Your task to perform on an android device: change alarm snooze length Image 0: 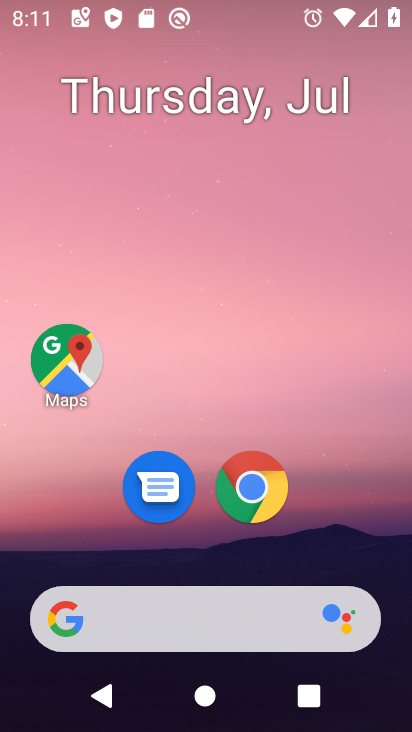
Step 0: click (280, 204)
Your task to perform on an android device: change alarm snooze length Image 1: 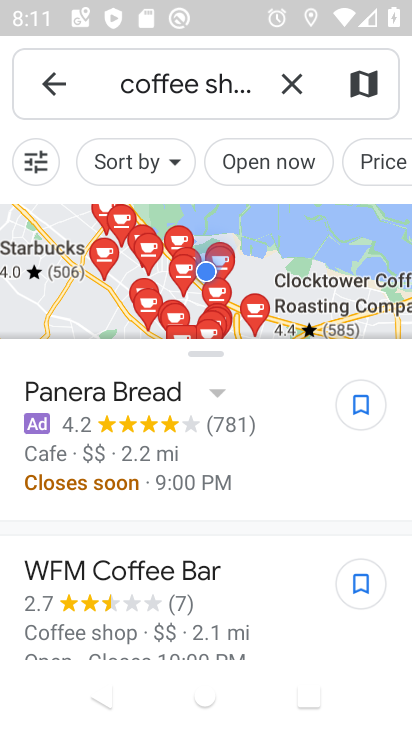
Step 1: press home button
Your task to perform on an android device: change alarm snooze length Image 2: 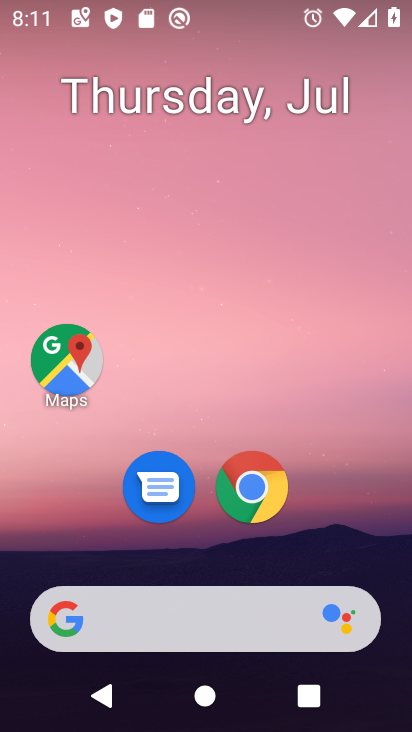
Step 2: drag from (213, 615) to (206, 259)
Your task to perform on an android device: change alarm snooze length Image 3: 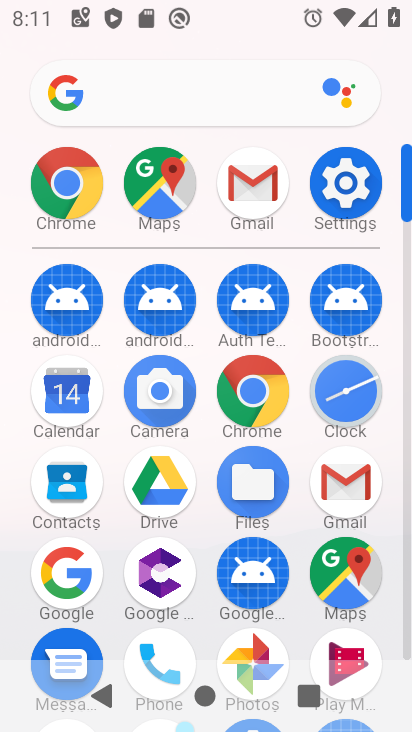
Step 3: drag from (249, 476) to (255, 282)
Your task to perform on an android device: change alarm snooze length Image 4: 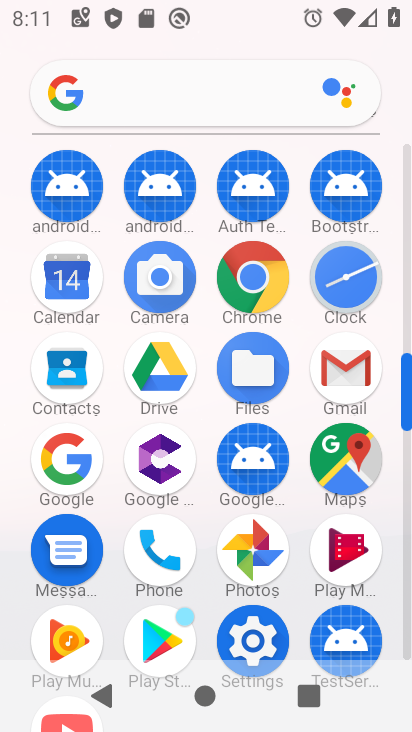
Step 4: drag from (241, 400) to (271, 212)
Your task to perform on an android device: change alarm snooze length Image 5: 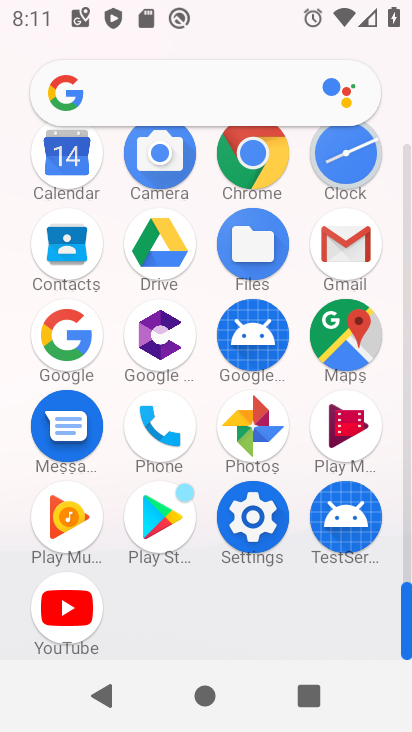
Step 5: drag from (269, 303) to (264, 524)
Your task to perform on an android device: change alarm snooze length Image 6: 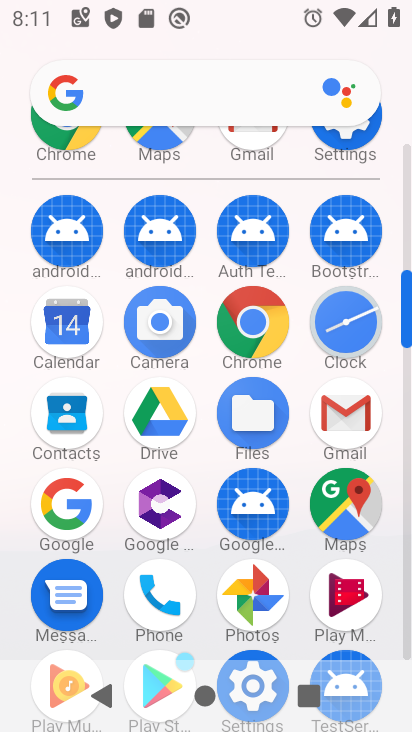
Step 6: click (357, 327)
Your task to perform on an android device: change alarm snooze length Image 7: 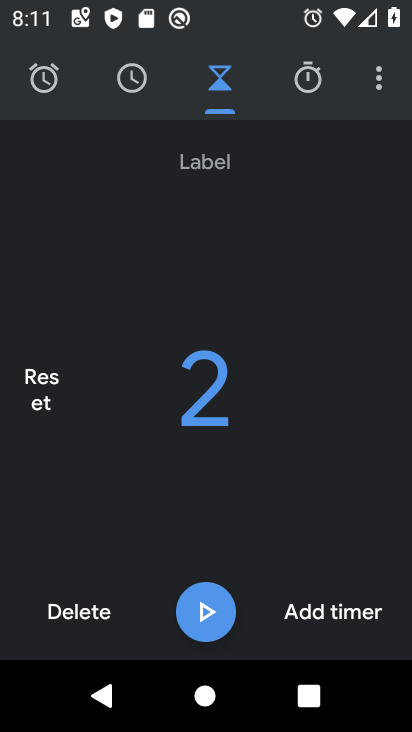
Step 7: click (386, 91)
Your task to perform on an android device: change alarm snooze length Image 8: 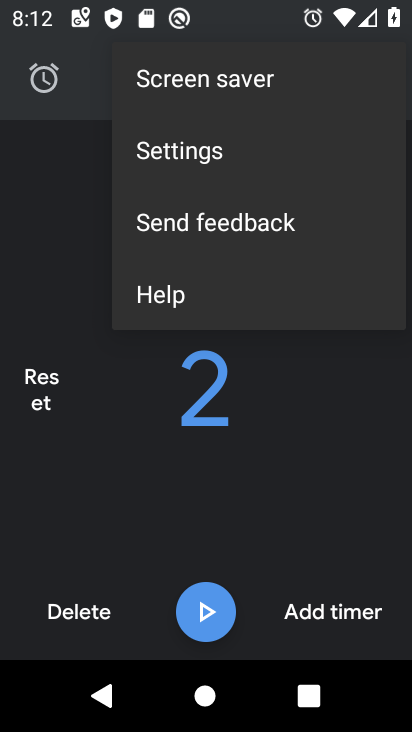
Step 8: click (199, 156)
Your task to perform on an android device: change alarm snooze length Image 9: 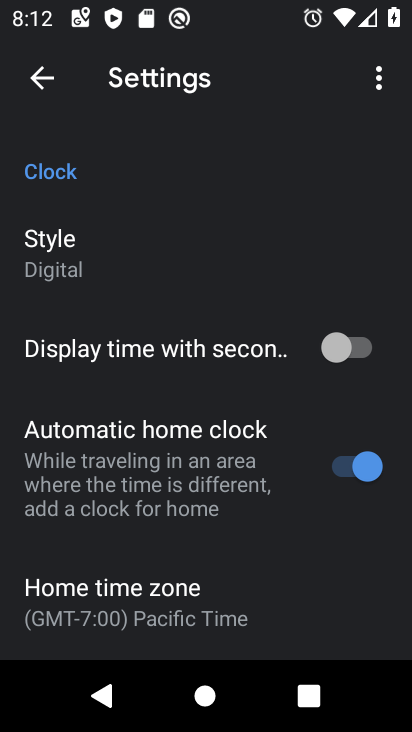
Step 9: drag from (151, 564) to (168, 330)
Your task to perform on an android device: change alarm snooze length Image 10: 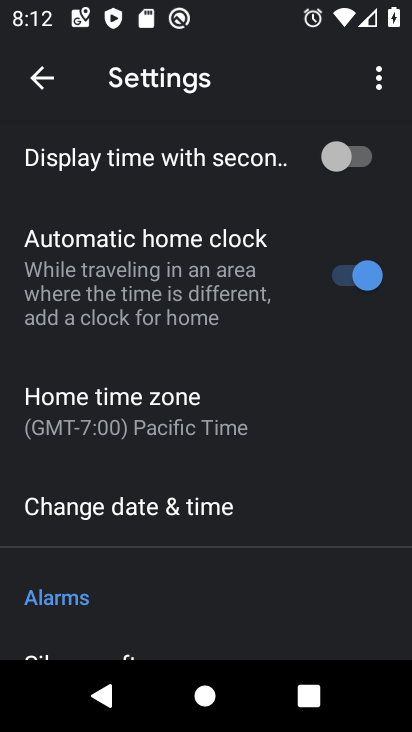
Step 10: drag from (172, 526) to (215, 315)
Your task to perform on an android device: change alarm snooze length Image 11: 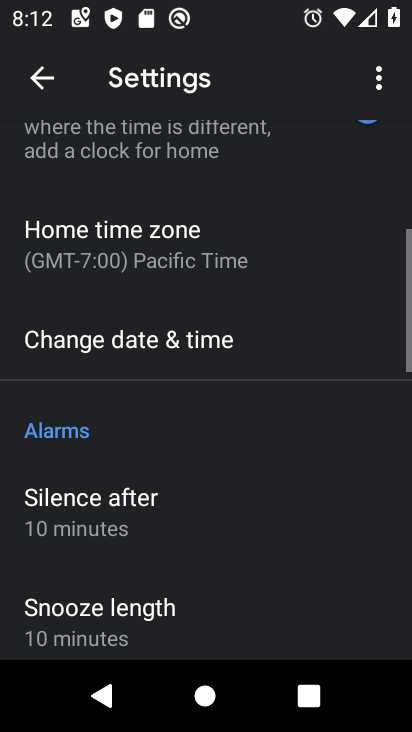
Step 11: drag from (202, 550) to (227, 345)
Your task to perform on an android device: change alarm snooze length Image 12: 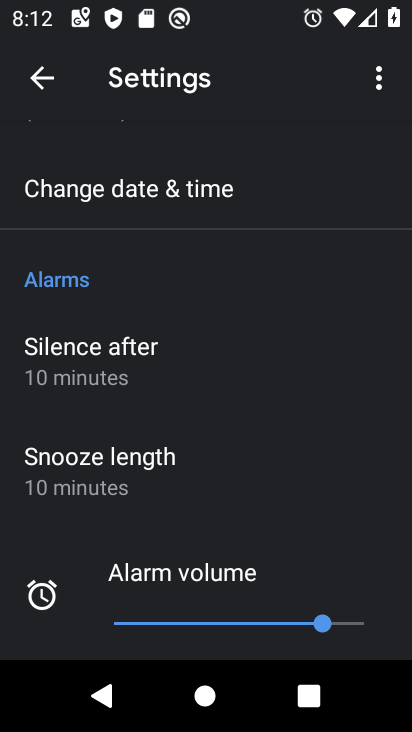
Step 12: click (168, 471)
Your task to perform on an android device: change alarm snooze length Image 13: 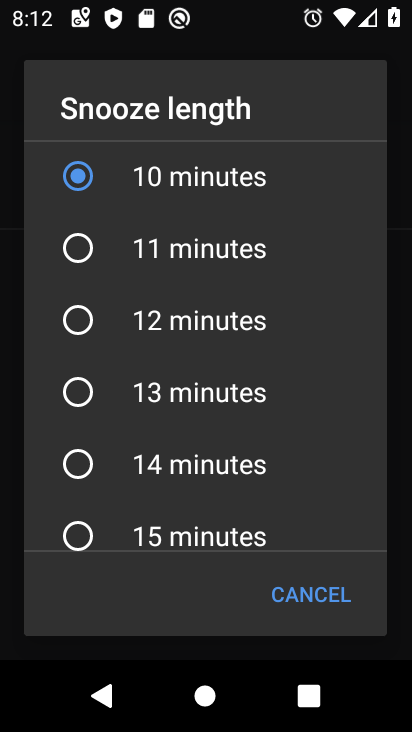
Step 13: click (81, 332)
Your task to perform on an android device: change alarm snooze length Image 14: 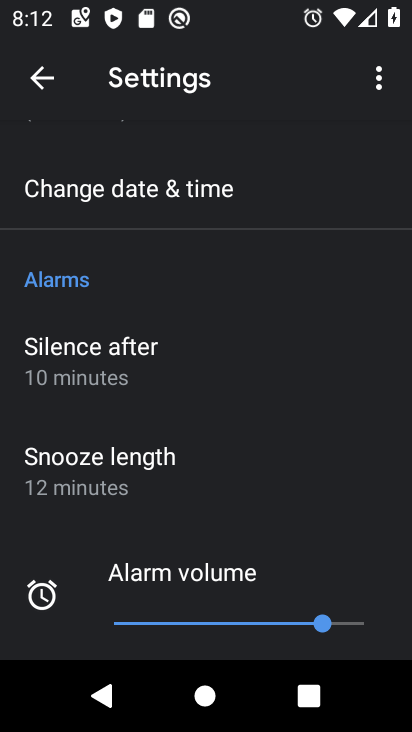
Step 14: task complete